Your task to perform on an android device: Open Youtube and go to "Your channel" Image 0: 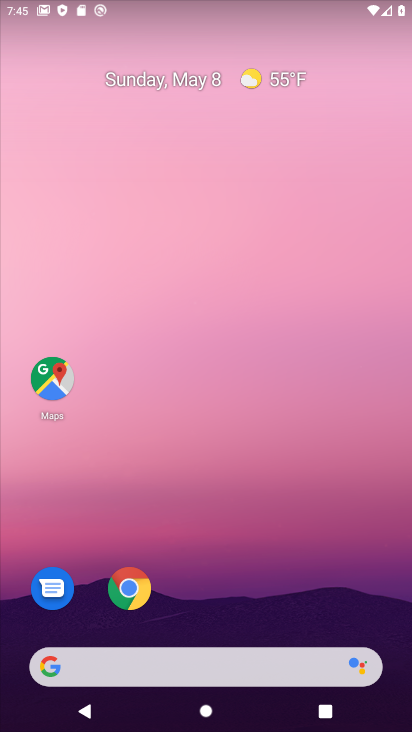
Step 0: drag from (332, 608) to (331, 53)
Your task to perform on an android device: Open Youtube and go to "Your channel" Image 1: 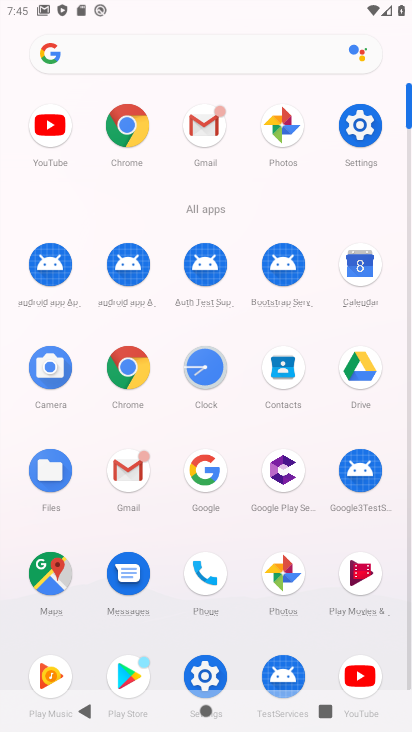
Step 1: click (350, 664)
Your task to perform on an android device: Open Youtube and go to "Your channel" Image 2: 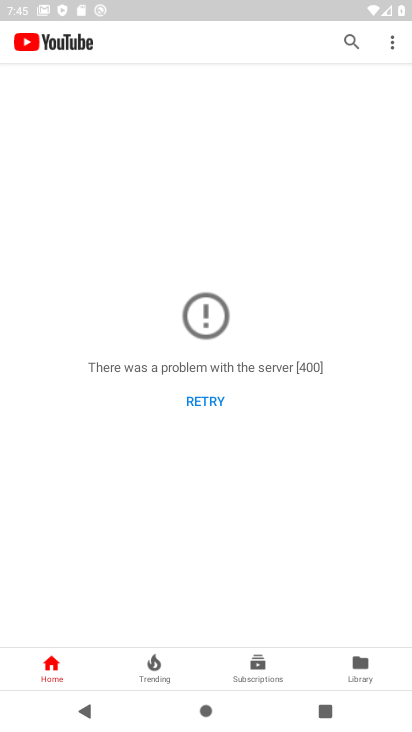
Step 2: click (204, 408)
Your task to perform on an android device: Open Youtube and go to "Your channel" Image 3: 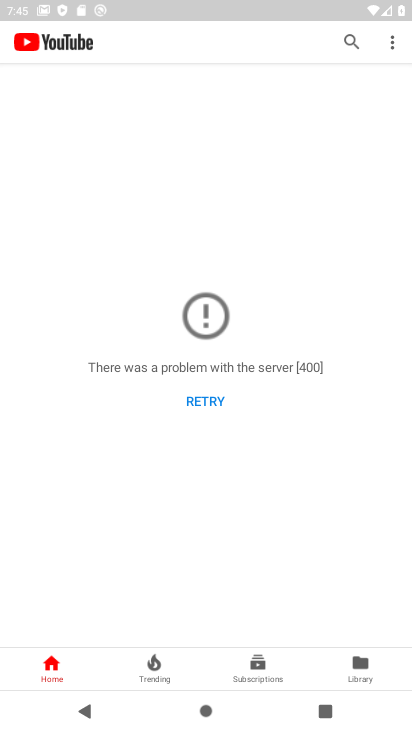
Step 3: click (219, 391)
Your task to perform on an android device: Open Youtube and go to "Your channel" Image 4: 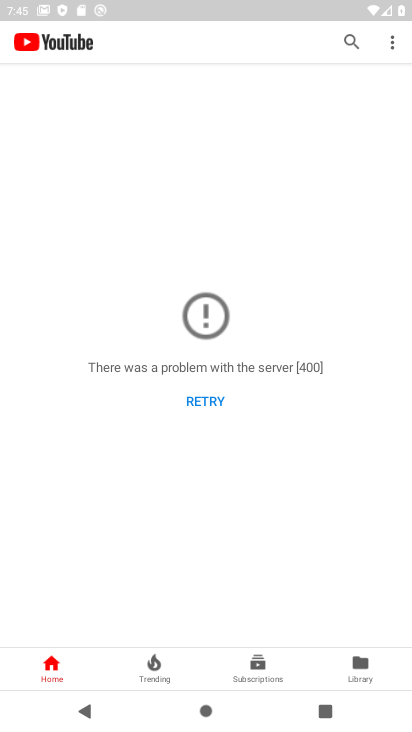
Step 4: click (219, 391)
Your task to perform on an android device: Open Youtube and go to "Your channel" Image 5: 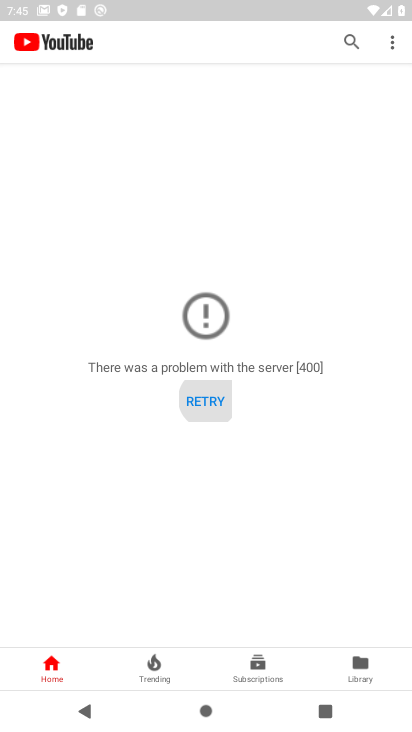
Step 5: click (219, 391)
Your task to perform on an android device: Open Youtube and go to "Your channel" Image 6: 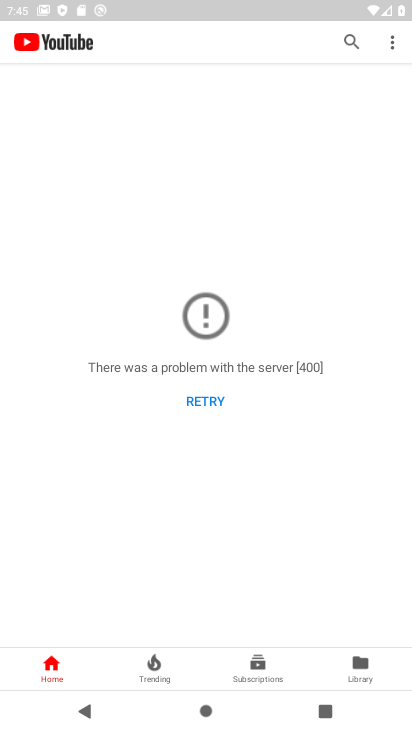
Step 6: click (219, 391)
Your task to perform on an android device: Open Youtube and go to "Your channel" Image 7: 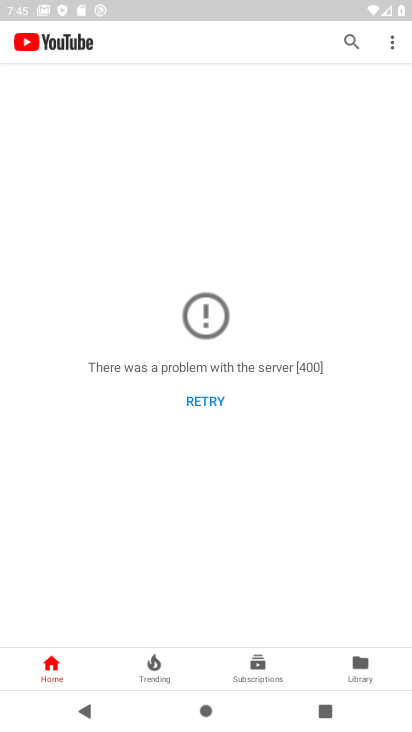
Step 7: task complete